Your task to perform on an android device: Is it going to rain today? Image 0: 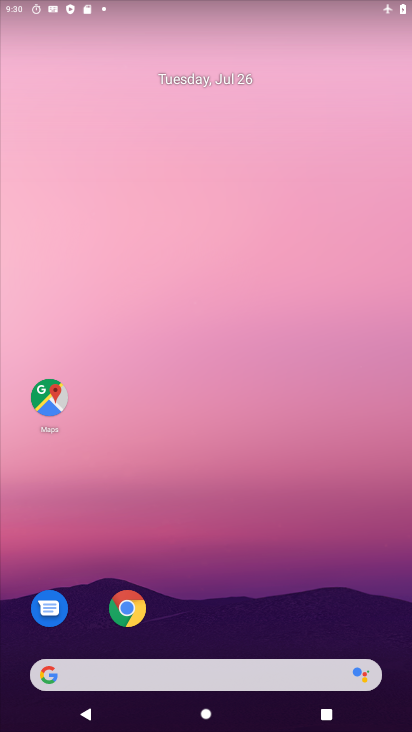
Step 0: drag from (236, 491) to (256, 134)
Your task to perform on an android device: Is it going to rain today? Image 1: 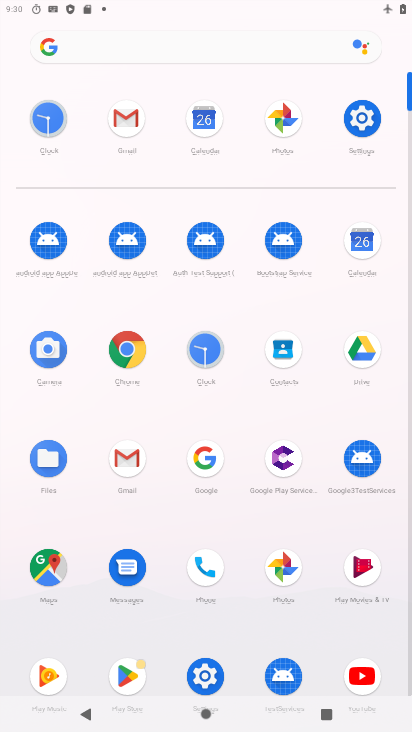
Step 1: click (204, 442)
Your task to perform on an android device: Is it going to rain today? Image 2: 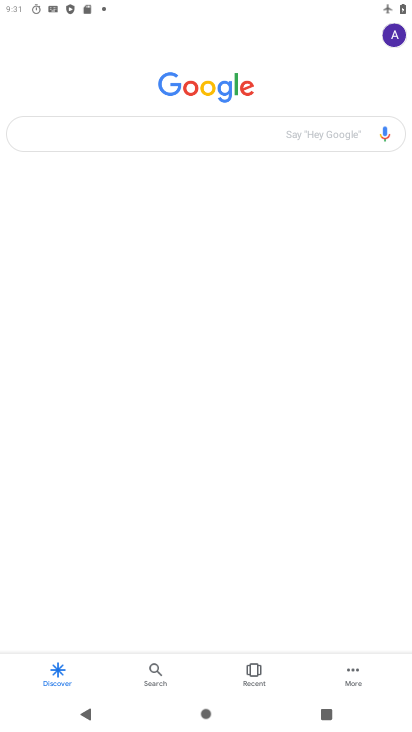
Step 2: click (168, 130)
Your task to perform on an android device: Is it going to rain today? Image 3: 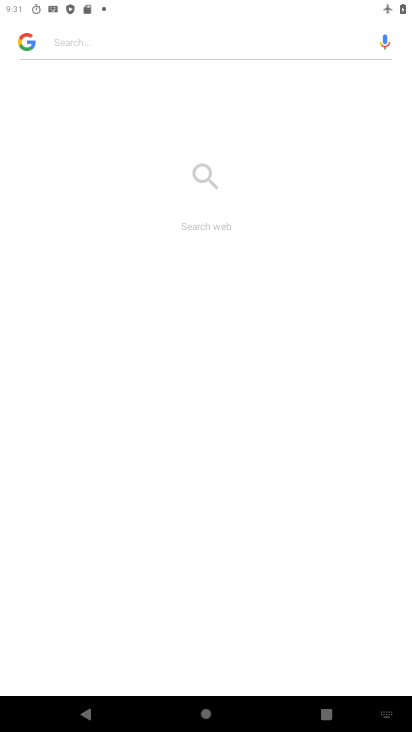
Step 3: task complete